Your task to perform on an android device: When is my next meeting? Image 0: 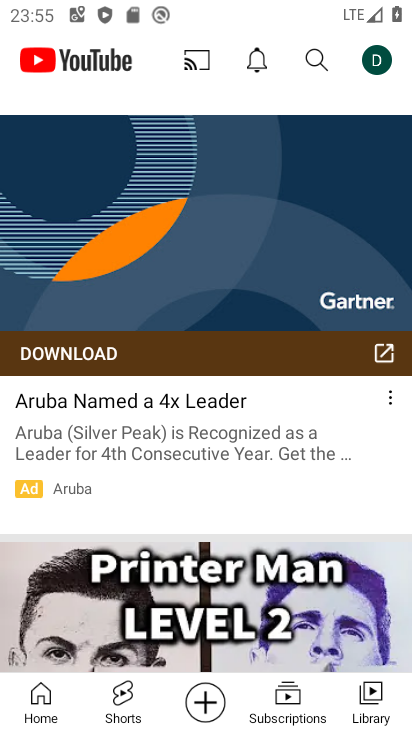
Step 0: press home button
Your task to perform on an android device: When is my next meeting? Image 1: 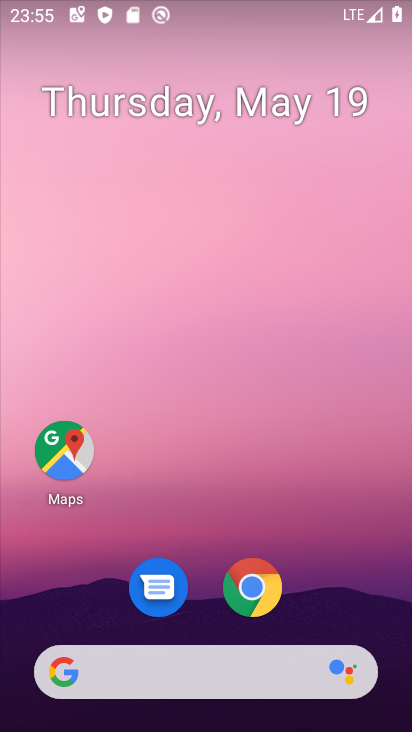
Step 1: drag from (248, 714) to (209, 145)
Your task to perform on an android device: When is my next meeting? Image 2: 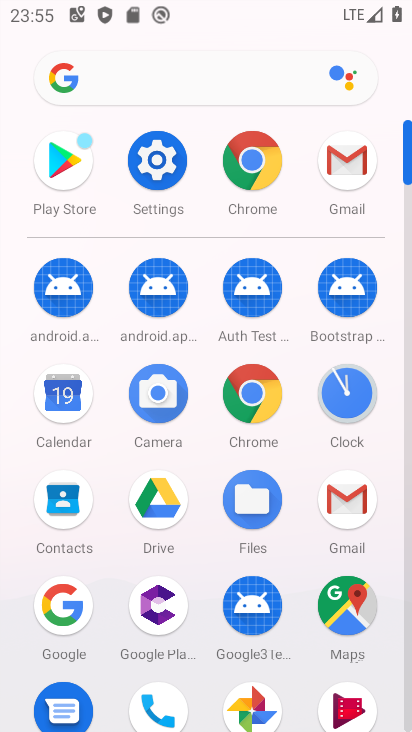
Step 2: click (73, 395)
Your task to perform on an android device: When is my next meeting? Image 3: 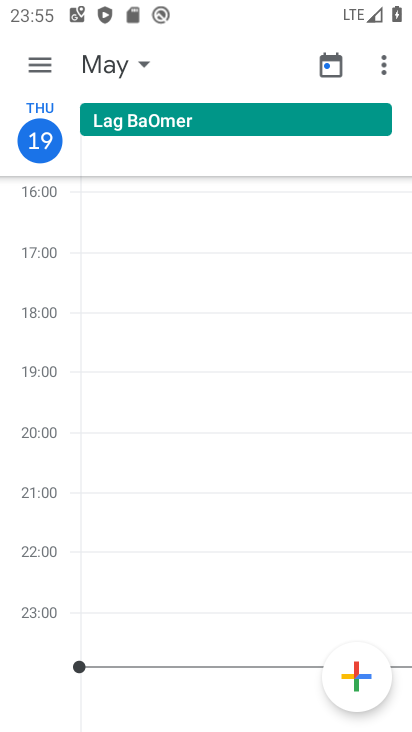
Step 3: click (39, 141)
Your task to perform on an android device: When is my next meeting? Image 4: 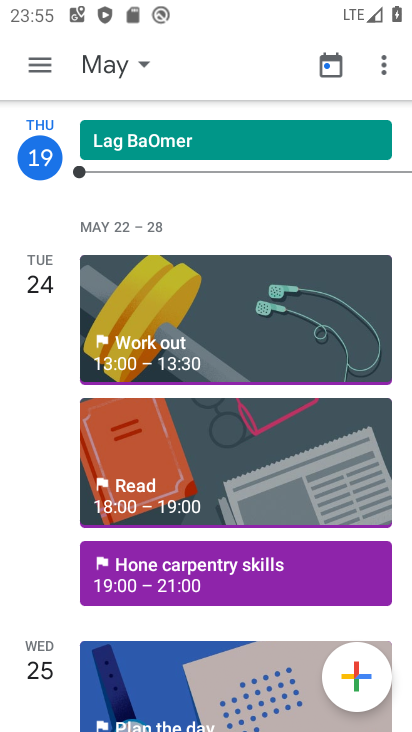
Step 4: task complete